Your task to perform on an android device: Open calendar and show me the third week of next month Image 0: 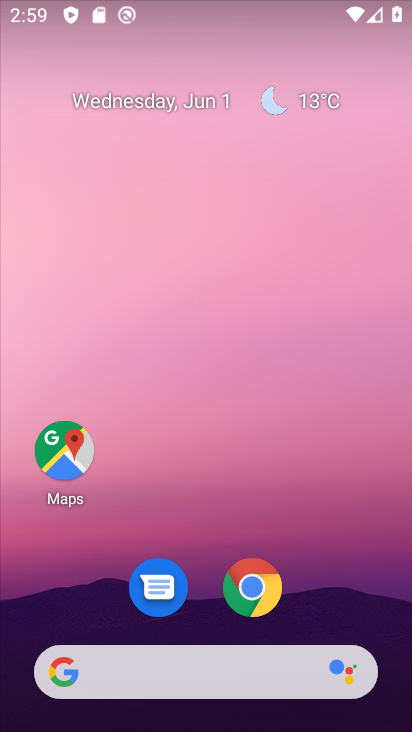
Step 0: drag from (300, 563) to (233, 31)
Your task to perform on an android device: Open calendar and show me the third week of next month Image 1: 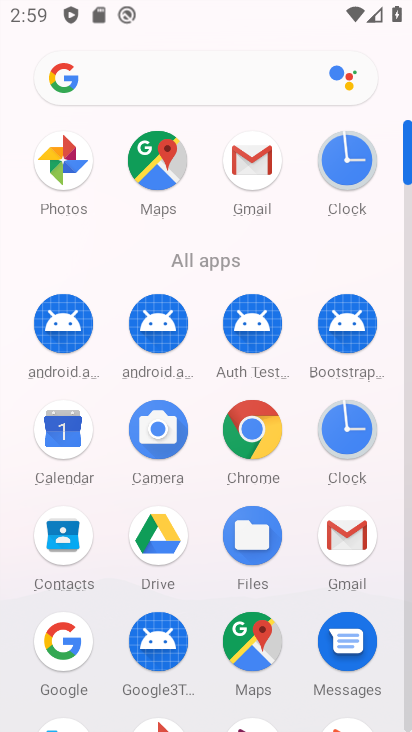
Step 1: drag from (7, 524) to (17, 173)
Your task to perform on an android device: Open calendar and show me the third week of next month Image 2: 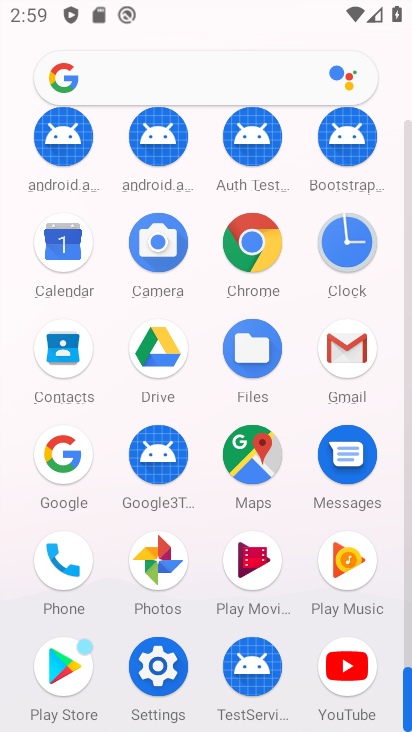
Step 2: drag from (3, 567) to (15, 233)
Your task to perform on an android device: Open calendar and show me the third week of next month Image 3: 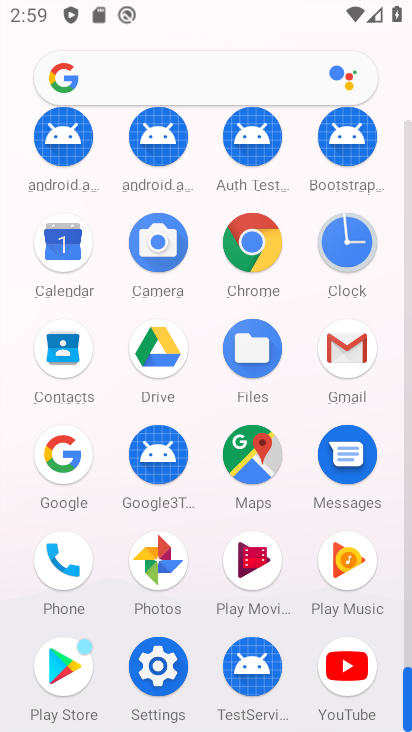
Step 3: drag from (13, 196) to (2, 113)
Your task to perform on an android device: Open calendar and show me the third week of next month Image 4: 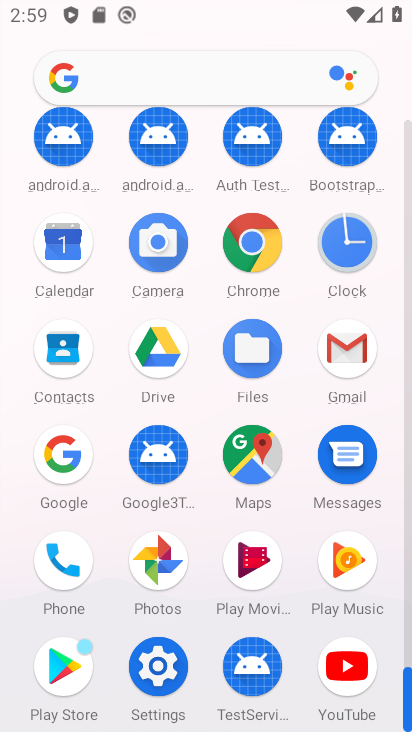
Step 4: click (61, 236)
Your task to perform on an android device: Open calendar and show me the third week of next month Image 5: 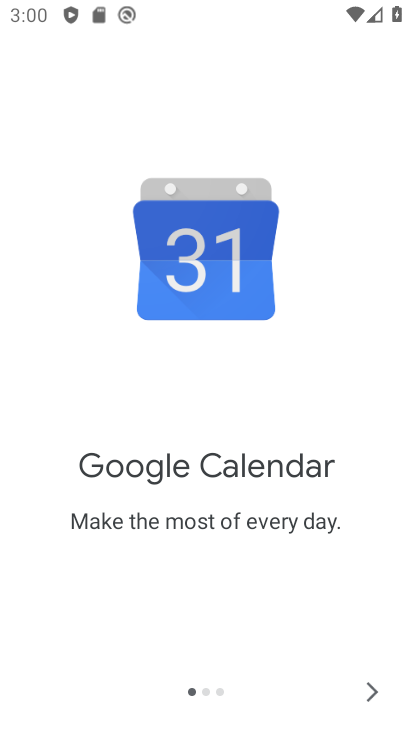
Step 5: click (372, 682)
Your task to perform on an android device: Open calendar and show me the third week of next month Image 6: 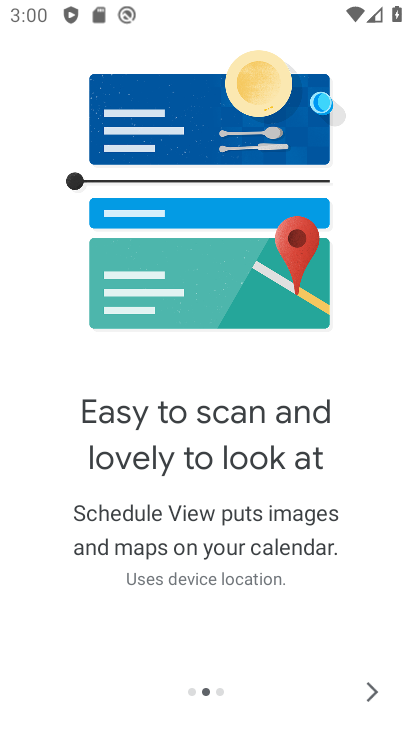
Step 6: click (372, 682)
Your task to perform on an android device: Open calendar and show me the third week of next month Image 7: 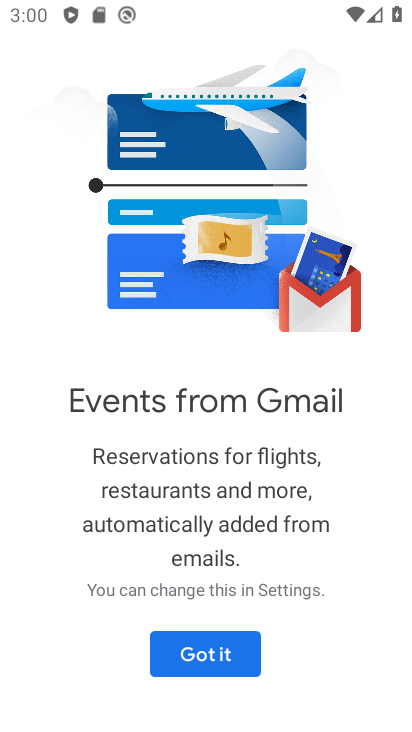
Step 7: click (220, 656)
Your task to perform on an android device: Open calendar and show me the third week of next month Image 8: 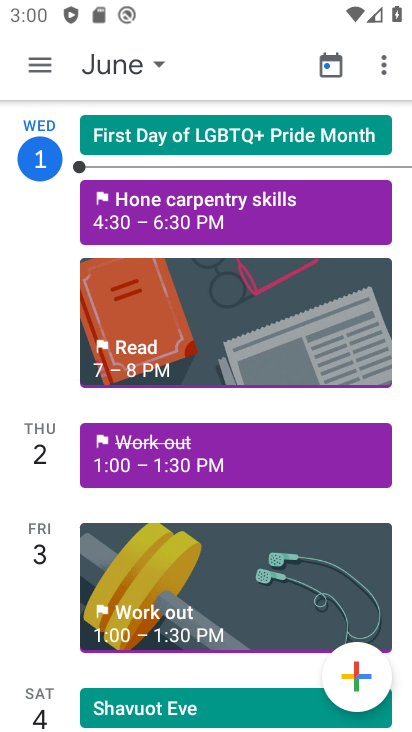
Step 8: click (92, 67)
Your task to perform on an android device: Open calendar and show me the third week of next month Image 9: 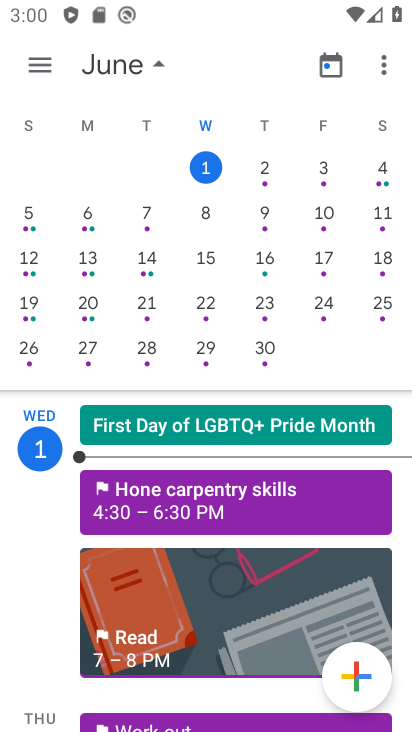
Step 9: drag from (368, 174) to (6, 176)
Your task to perform on an android device: Open calendar and show me the third week of next month Image 10: 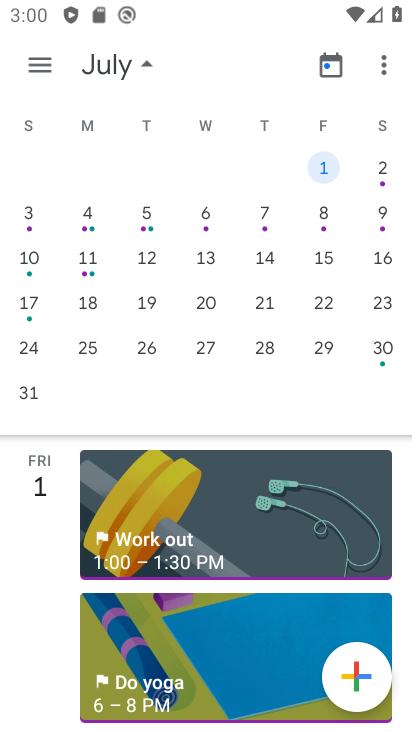
Step 10: click (27, 263)
Your task to perform on an android device: Open calendar and show me the third week of next month Image 11: 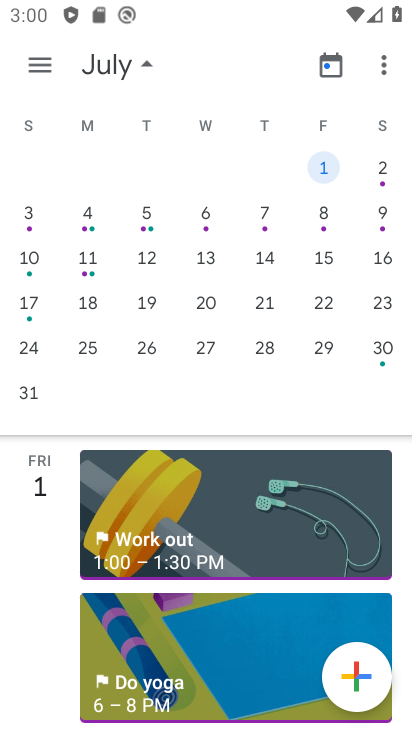
Step 11: click (25, 299)
Your task to perform on an android device: Open calendar and show me the third week of next month Image 12: 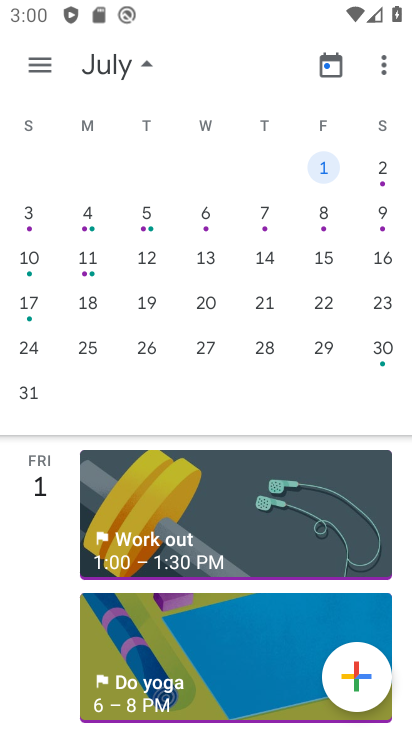
Step 12: click (34, 299)
Your task to perform on an android device: Open calendar and show me the third week of next month Image 13: 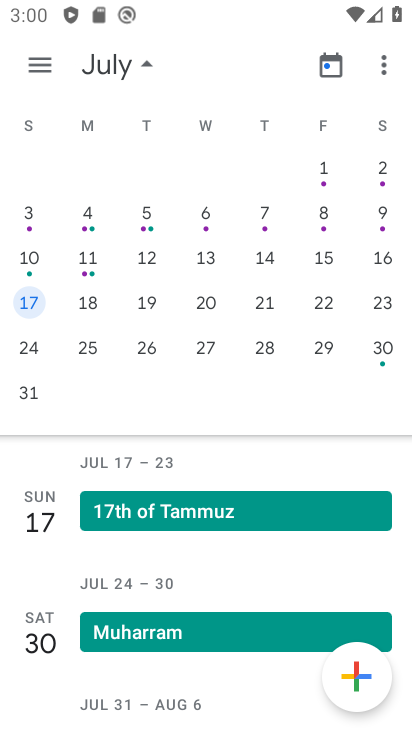
Step 13: click (44, 41)
Your task to perform on an android device: Open calendar and show me the third week of next month Image 14: 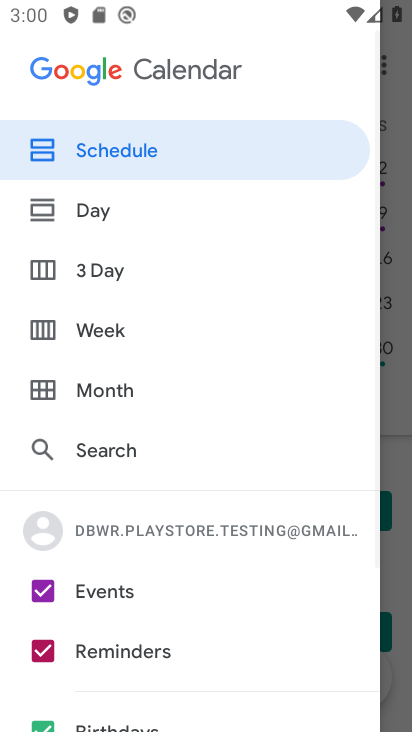
Step 14: click (78, 324)
Your task to perform on an android device: Open calendar and show me the third week of next month Image 15: 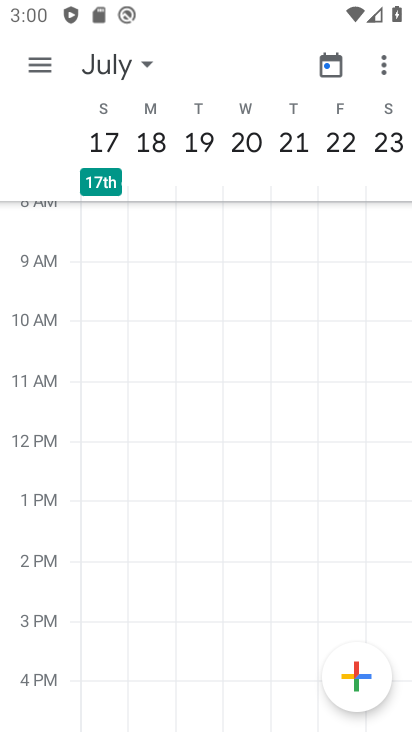
Step 15: task complete